Your task to perform on an android device: Open calendar and show me the fourth week of next month Image 0: 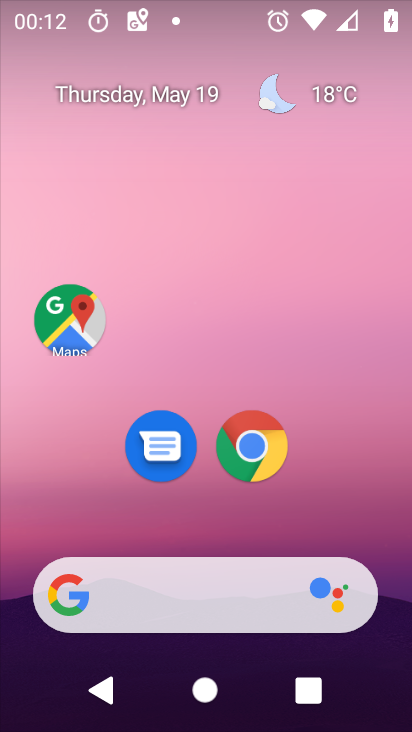
Step 0: press home button
Your task to perform on an android device: Open calendar and show me the fourth week of next month Image 1: 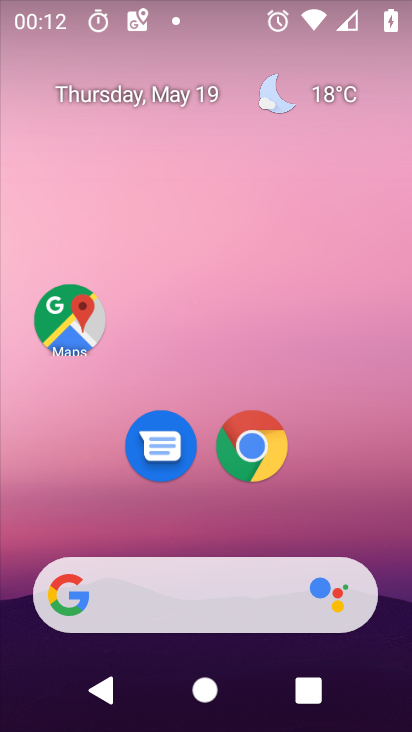
Step 1: drag from (234, 588) to (345, 141)
Your task to perform on an android device: Open calendar and show me the fourth week of next month Image 2: 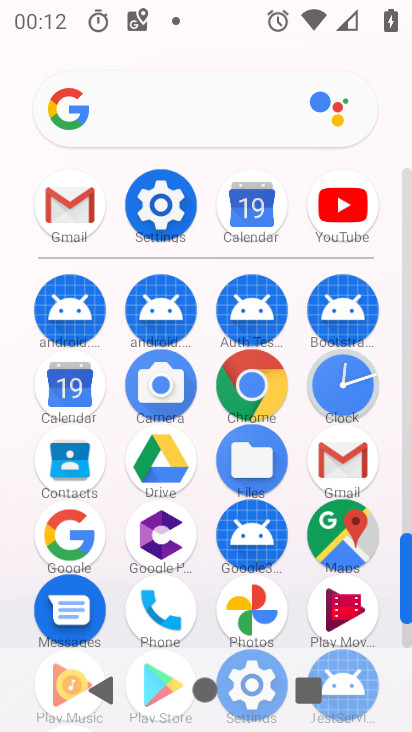
Step 2: click (74, 379)
Your task to perform on an android device: Open calendar and show me the fourth week of next month Image 3: 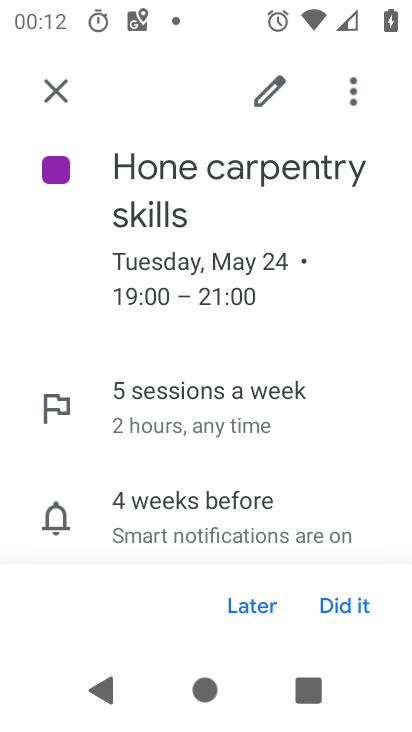
Step 3: click (57, 92)
Your task to perform on an android device: Open calendar and show me the fourth week of next month Image 4: 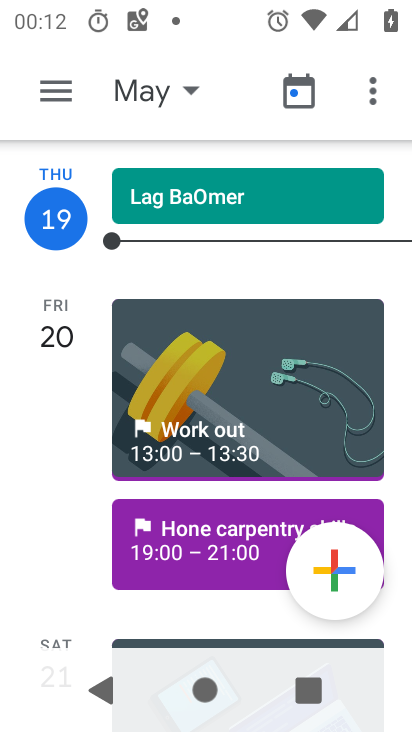
Step 4: click (147, 90)
Your task to perform on an android device: Open calendar and show me the fourth week of next month Image 5: 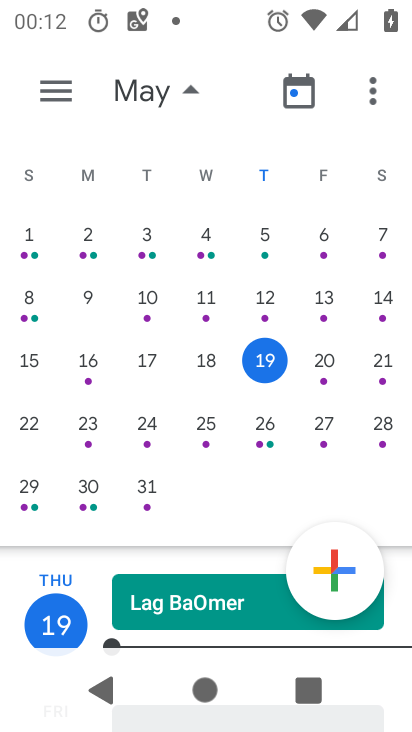
Step 5: drag from (392, 388) to (82, 400)
Your task to perform on an android device: Open calendar and show me the fourth week of next month Image 6: 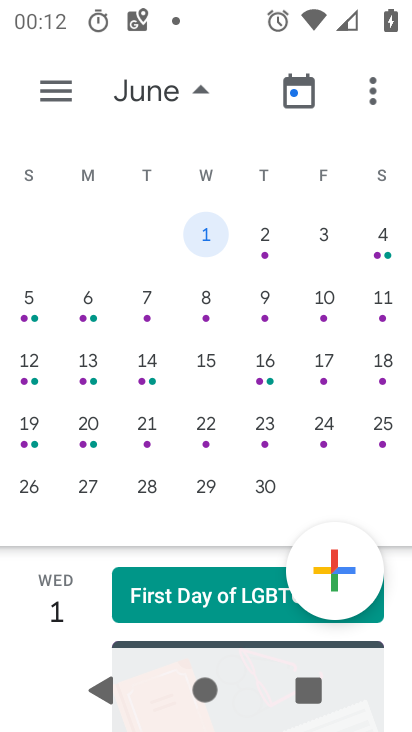
Step 6: click (32, 425)
Your task to perform on an android device: Open calendar and show me the fourth week of next month Image 7: 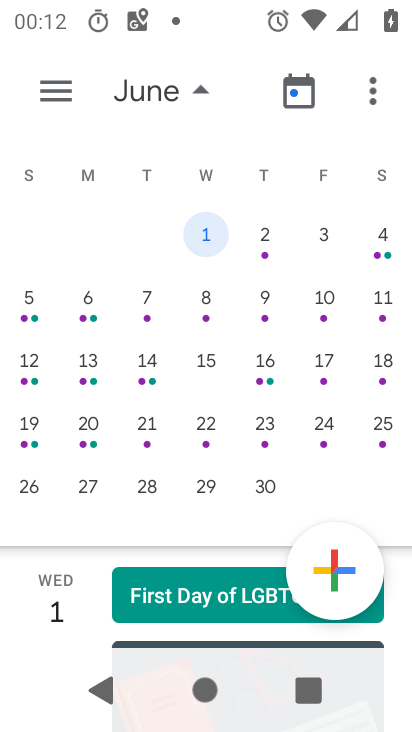
Step 7: click (40, 418)
Your task to perform on an android device: Open calendar and show me the fourth week of next month Image 8: 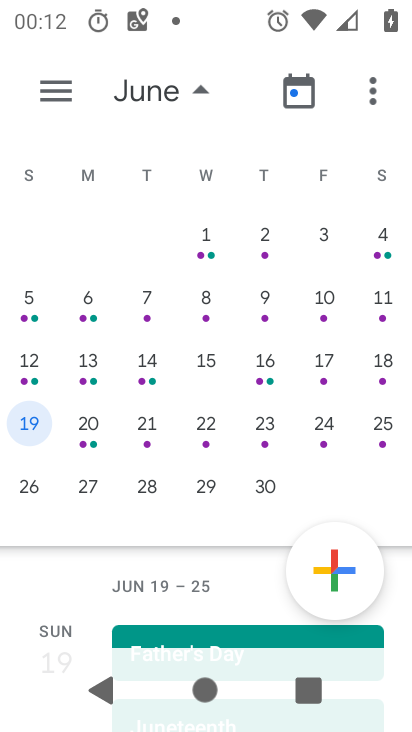
Step 8: click (64, 86)
Your task to perform on an android device: Open calendar and show me the fourth week of next month Image 9: 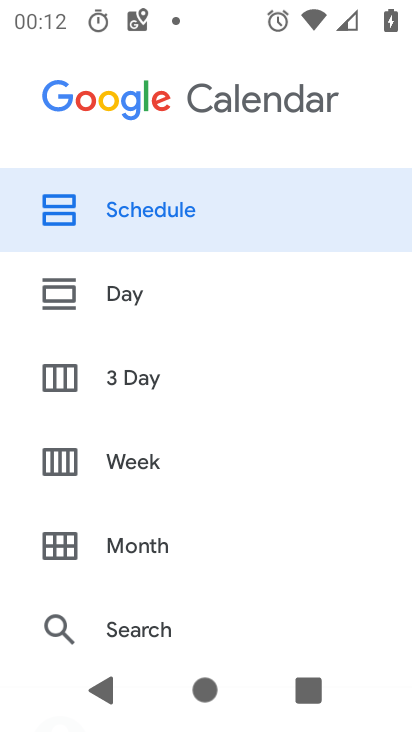
Step 9: click (138, 468)
Your task to perform on an android device: Open calendar and show me the fourth week of next month Image 10: 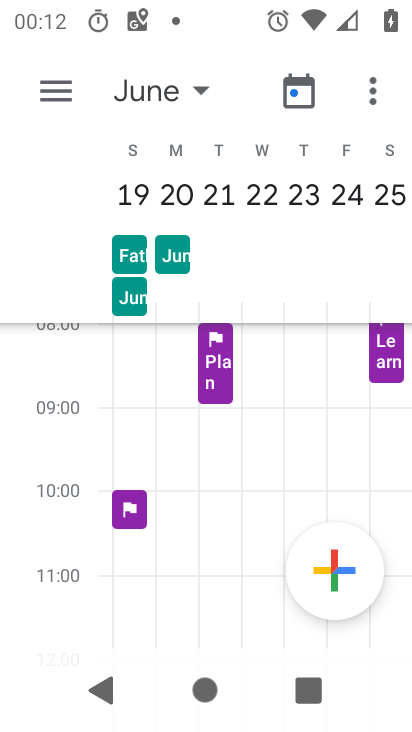
Step 10: click (63, 96)
Your task to perform on an android device: Open calendar and show me the fourth week of next month Image 11: 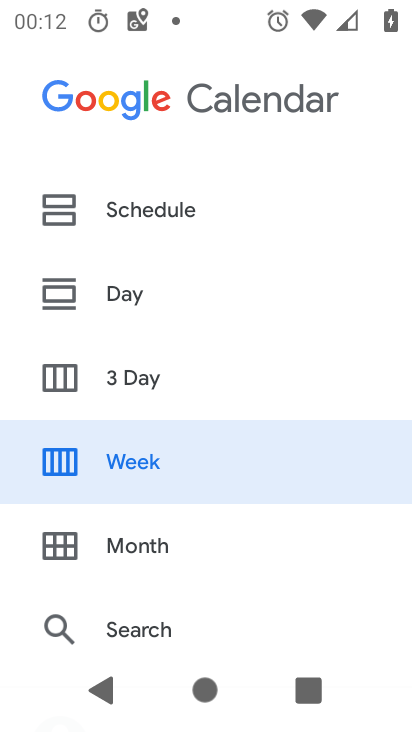
Step 11: click (144, 218)
Your task to perform on an android device: Open calendar and show me the fourth week of next month Image 12: 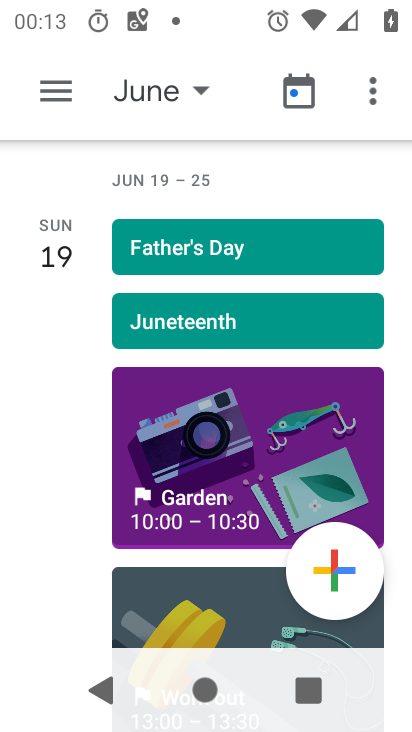
Step 12: task complete